Your task to perform on an android device: turn on javascript in the chrome app Image 0: 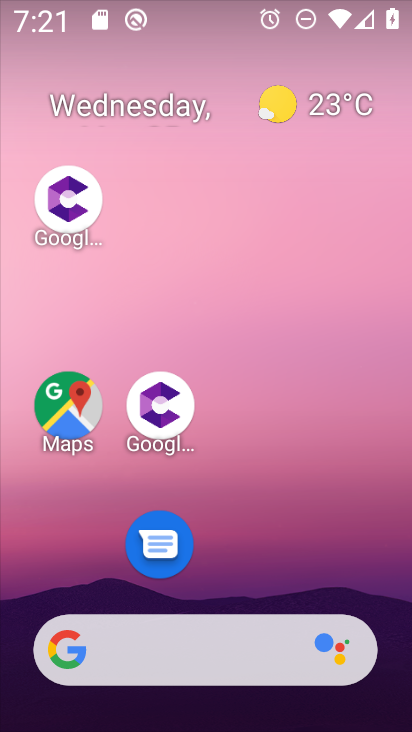
Step 0: drag from (271, 489) to (195, 24)
Your task to perform on an android device: turn on javascript in the chrome app Image 1: 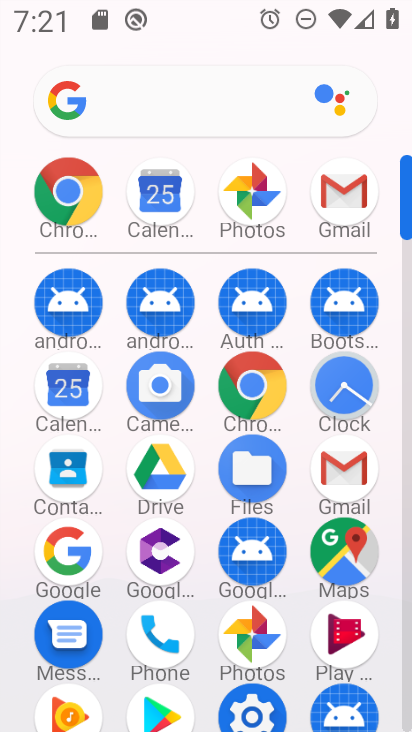
Step 1: click (69, 182)
Your task to perform on an android device: turn on javascript in the chrome app Image 2: 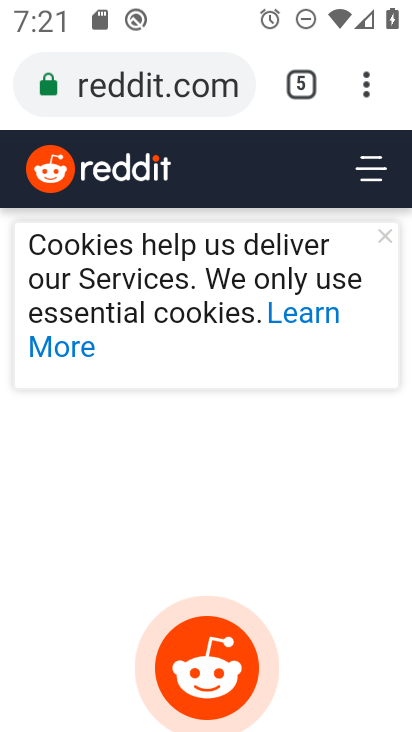
Step 2: click (367, 86)
Your task to perform on an android device: turn on javascript in the chrome app Image 3: 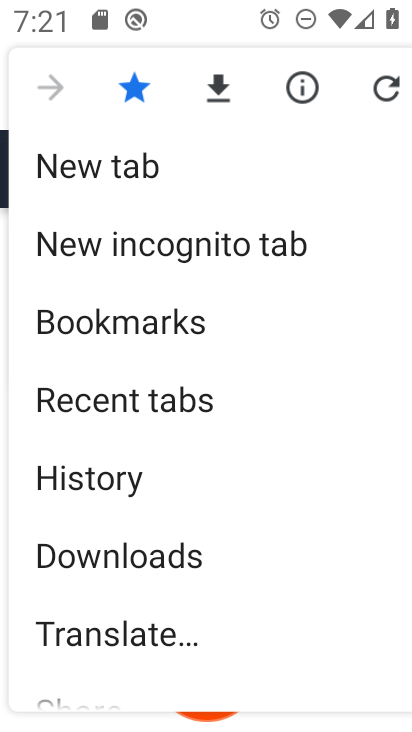
Step 3: drag from (221, 585) to (92, 112)
Your task to perform on an android device: turn on javascript in the chrome app Image 4: 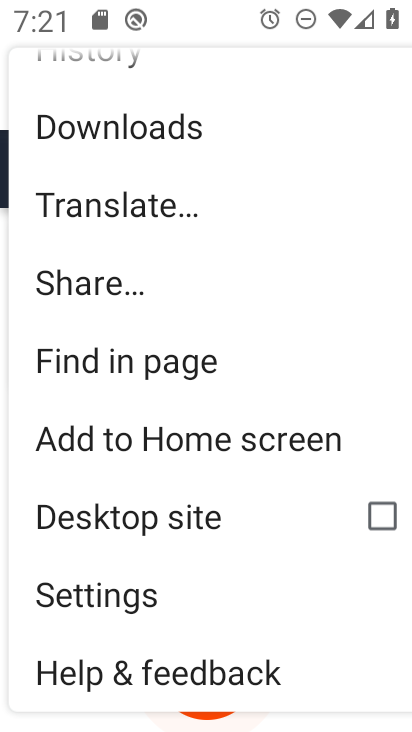
Step 4: click (102, 592)
Your task to perform on an android device: turn on javascript in the chrome app Image 5: 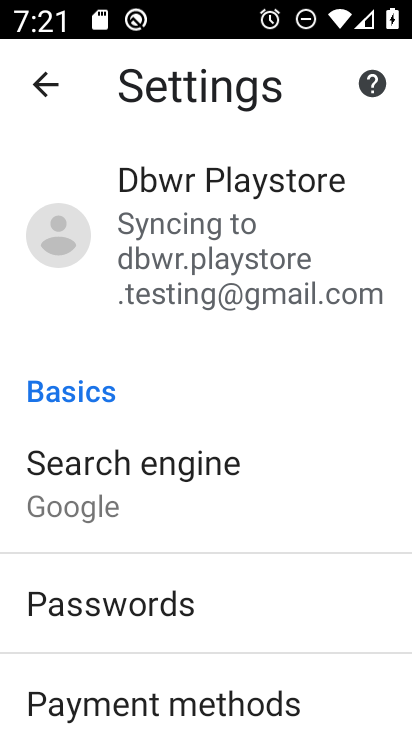
Step 5: drag from (265, 580) to (222, 188)
Your task to perform on an android device: turn on javascript in the chrome app Image 6: 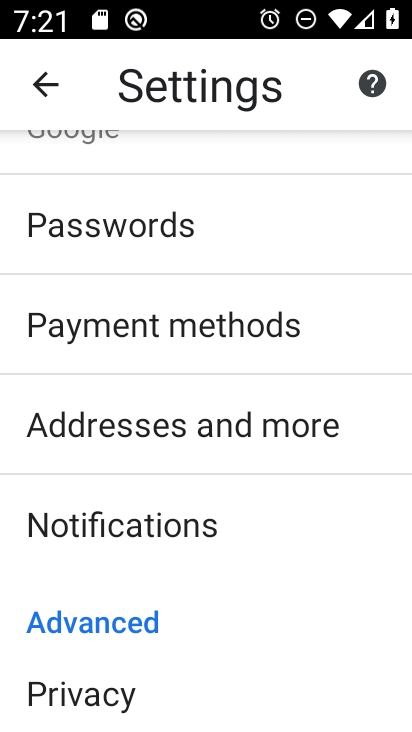
Step 6: drag from (243, 597) to (180, 115)
Your task to perform on an android device: turn on javascript in the chrome app Image 7: 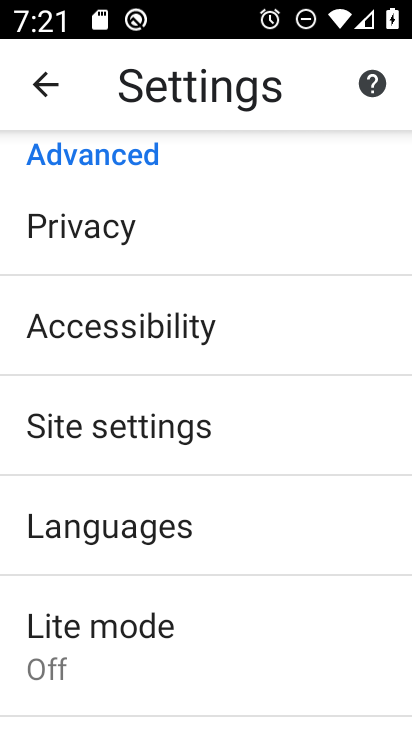
Step 7: click (140, 428)
Your task to perform on an android device: turn on javascript in the chrome app Image 8: 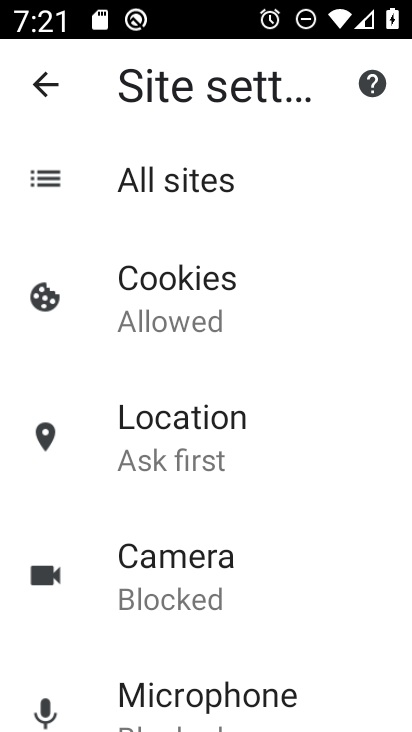
Step 8: drag from (265, 566) to (256, 279)
Your task to perform on an android device: turn on javascript in the chrome app Image 9: 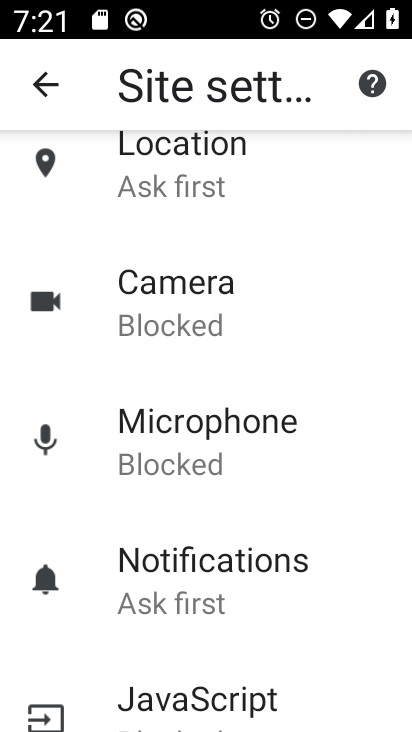
Step 9: click (183, 688)
Your task to perform on an android device: turn on javascript in the chrome app Image 10: 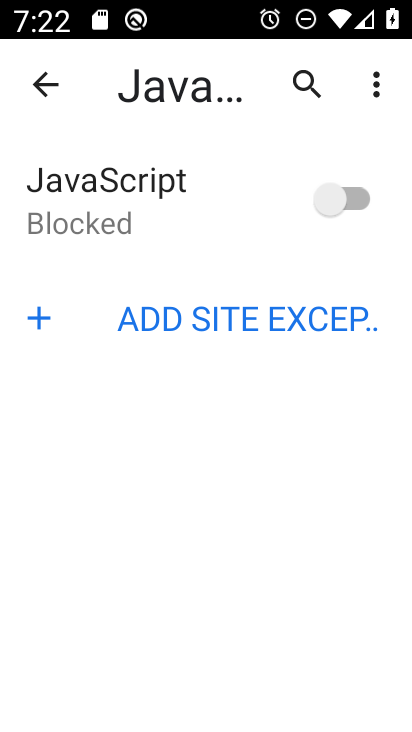
Step 10: click (320, 201)
Your task to perform on an android device: turn on javascript in the chrome app Image 11: 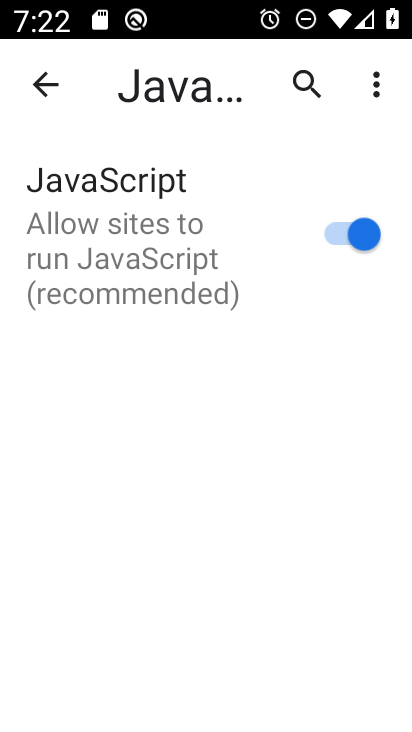
Step 11: task complete